Your task to perform on an android device: Is it going to rain today? Image 0: 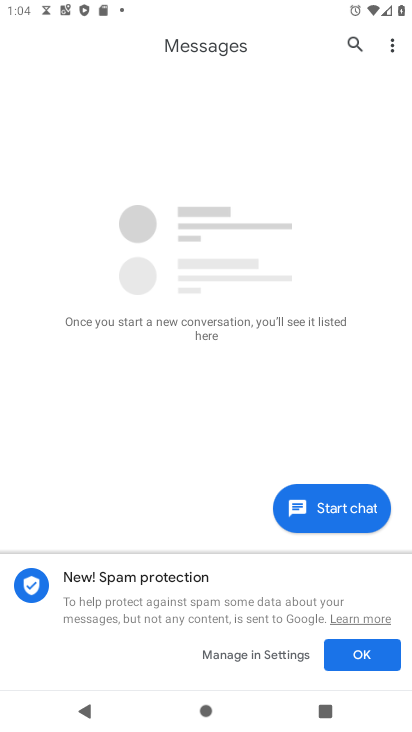
Step 0: press home button
Your task to perform on an android device: Is it going to rain today? Image 1: 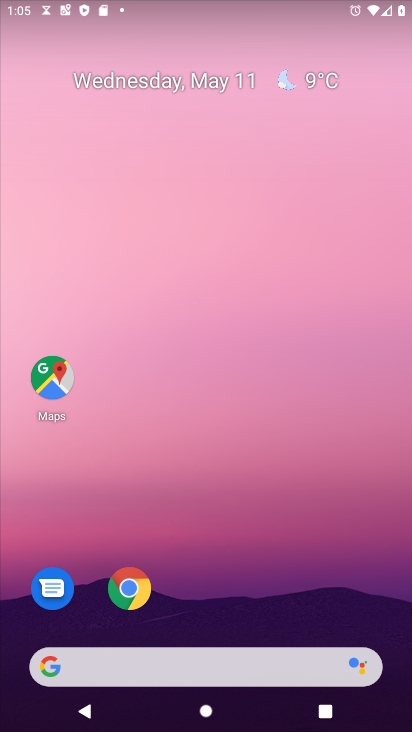
Step 1: click (333, 90)
Your task to perform on an android device: Is it going to rain today? Image 2: 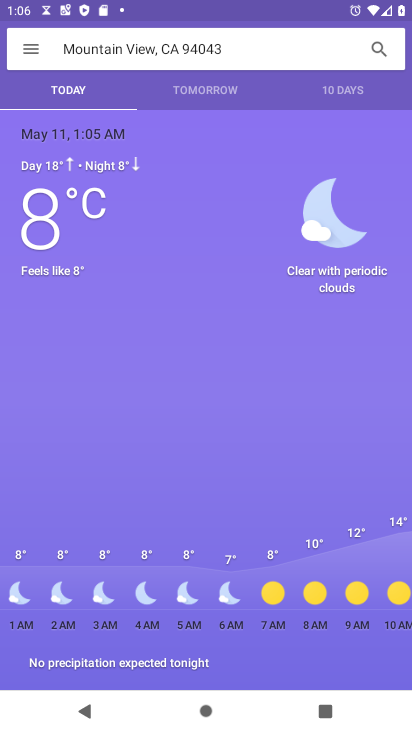
Step 2: task complete